Your task to perform on an android device: Open Chrome and go to settings Image 0: 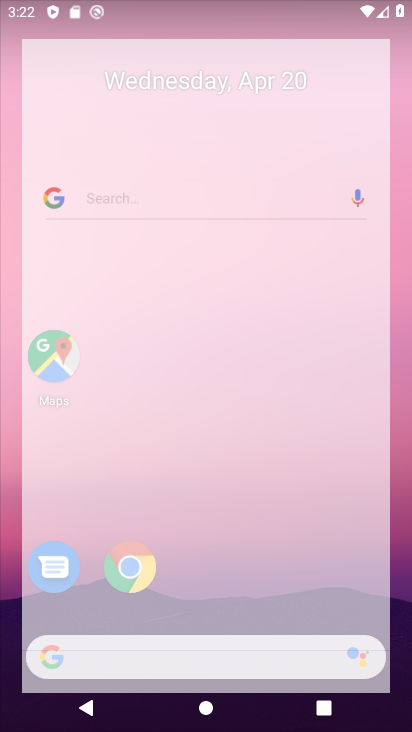
Step 0: drag from (376, 510) to (251, 90)
Your task to perform on an android device: Open Chrome and go to settings Image 1: 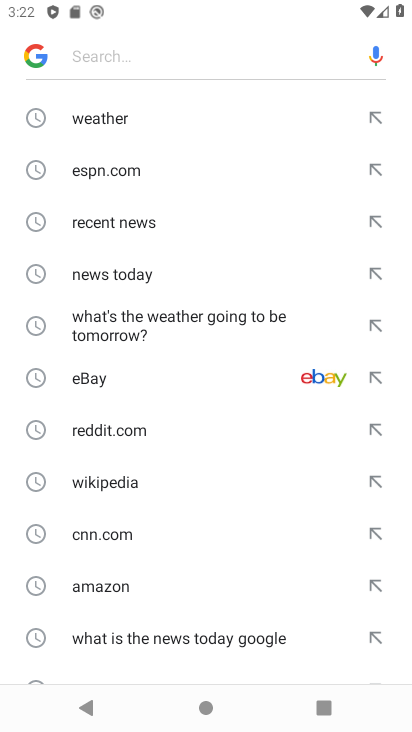
Step 1: press home button
Your task to perform on an android device: Open Chrome and go to settings Image 2: 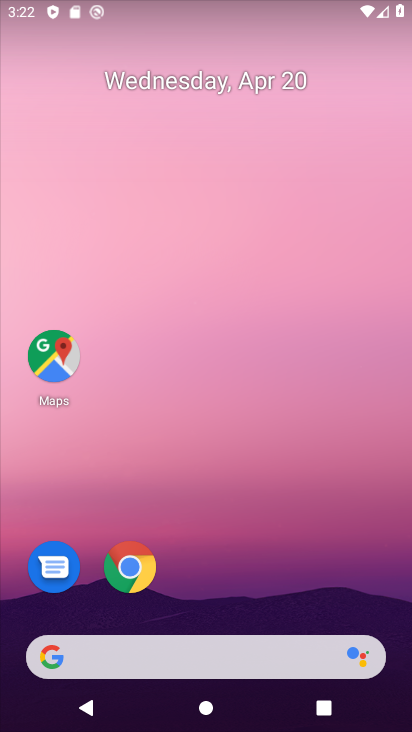
Step 2: drag from (278, 604) to (268, 58)
Your task to perform on an android device: Open Chrome and go to settings Image 3: 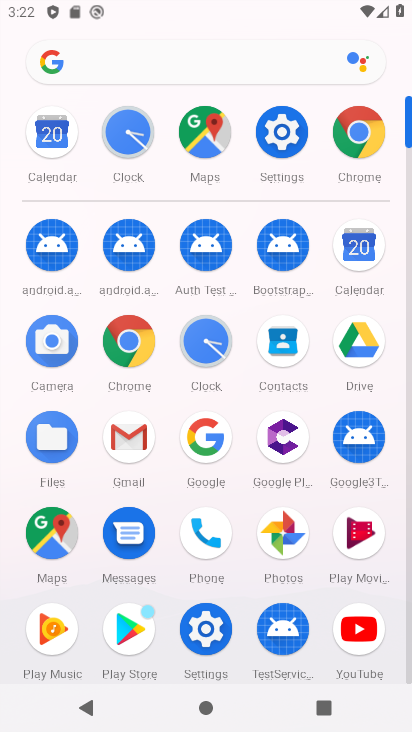
Step 3: click (347, 122)
Your task to perform on an android device: Open Chrome and go to settings Image 4: 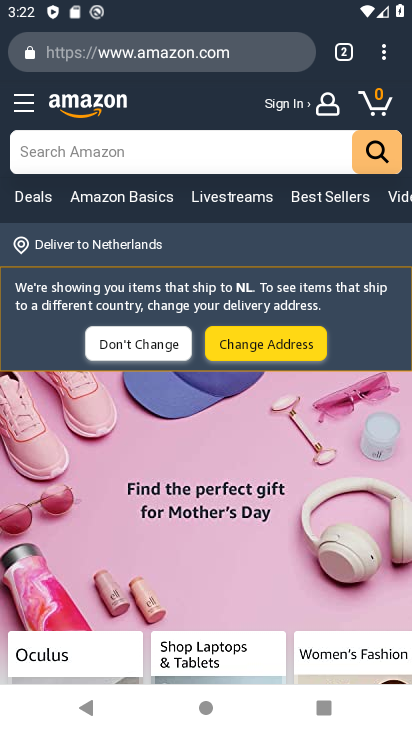
Step 4: task complete